Your task to perform on an android device: Open eBay Image 0: 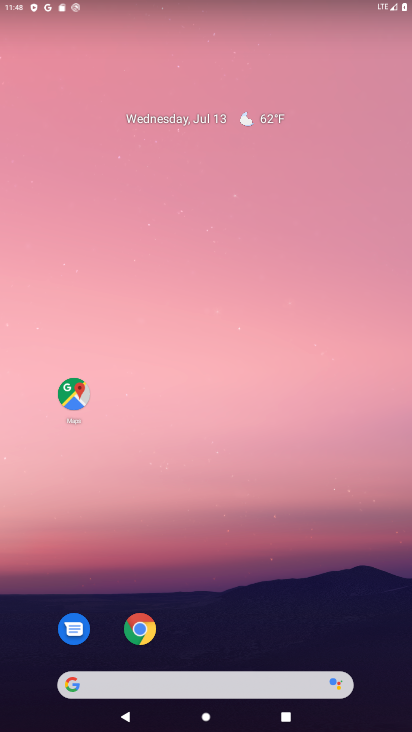
Step 0: click (149, 116)
Your task to perform on an android device: Open eBay Image 1: 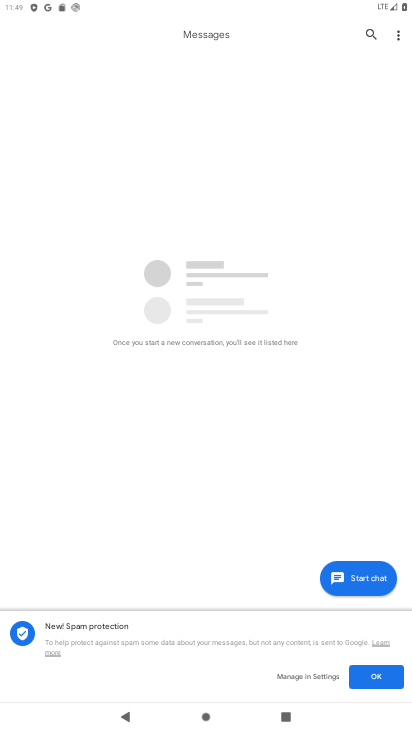
Step 1: press home button
Your task to perform on an android device: Open eBay Image 2: 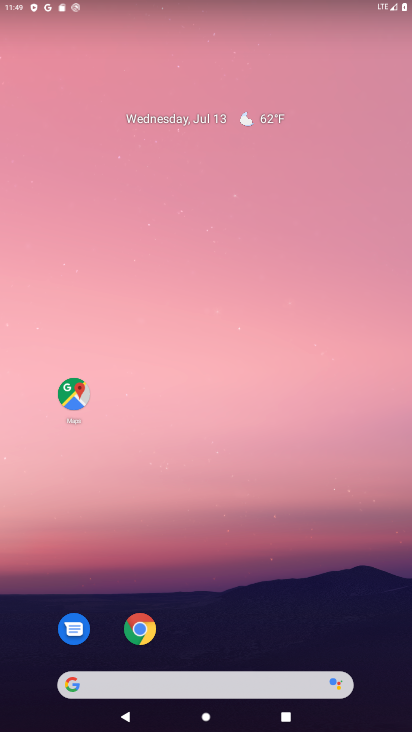
Step 2: click (132, 638)
Your task to perform on an android device: Open eBay Image 3: 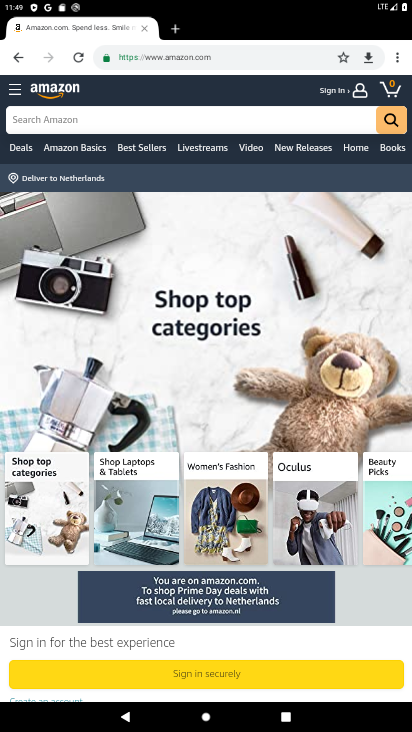
Step 3: click (180, 22)
Your task to perform on an android device: Open eBay Image 4: 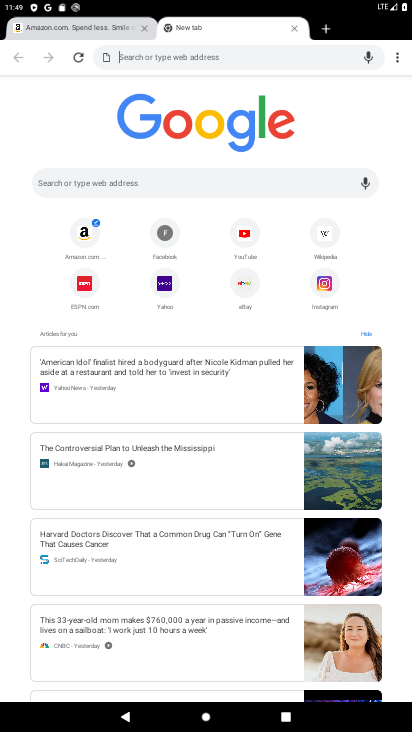
Step 4: click (246, 285)
Your task to perform on an android device: Open eBay Image 5: 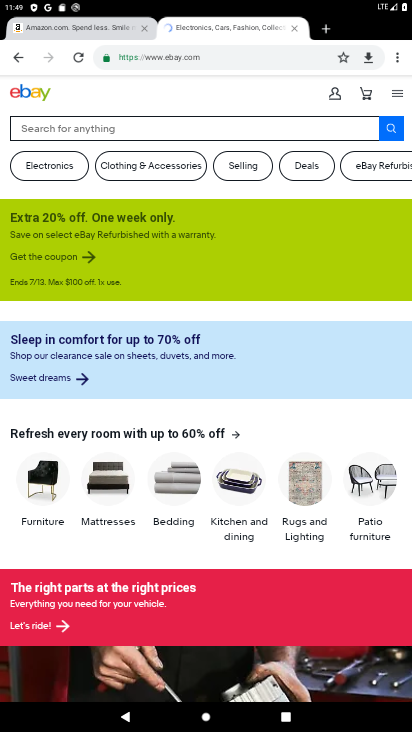
Step 5: task complete